Your task to perform on an android device: allow cookies in the chrome app Image 0: 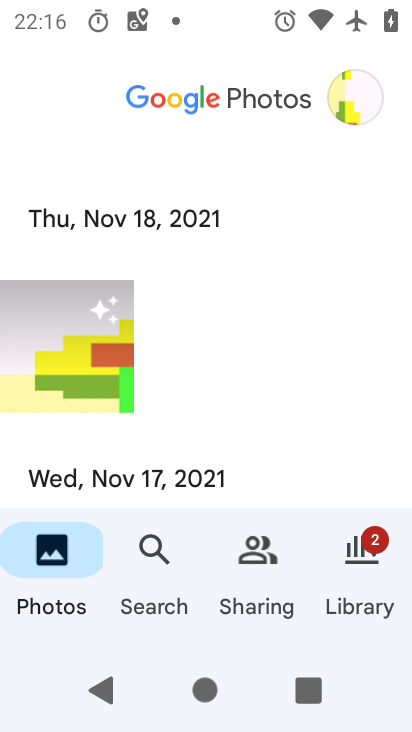
Step 0: press home button
Your task to perform on an android device: allow cookies in the chrome app Image 1: 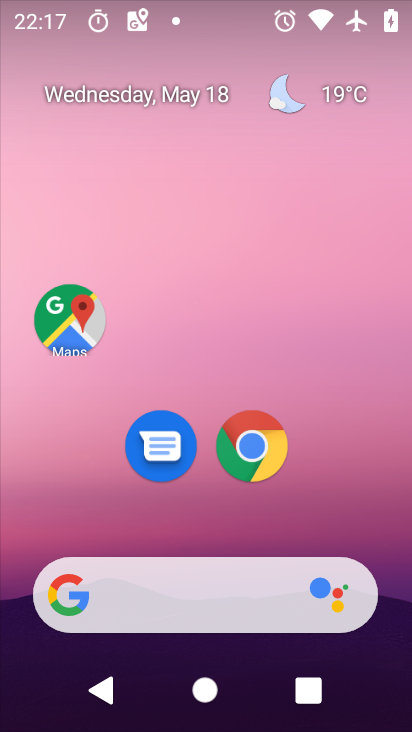
Step 1: click (257, 455)
Your task to perform on an android device: allow cookies in the chrome app Image 2: 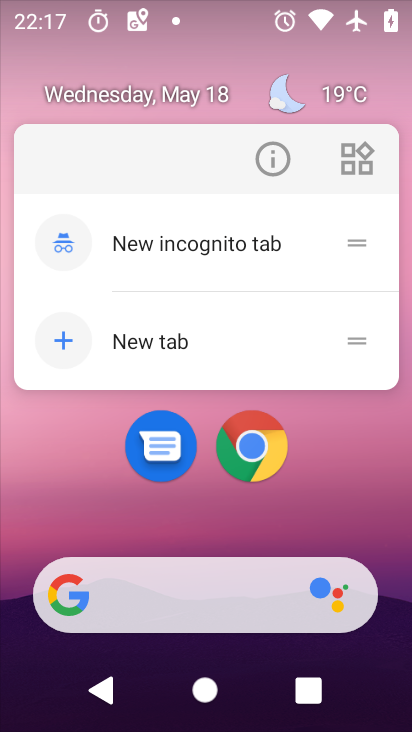
Step 2: click (257, 455)
Your task to perform on an android device: allow cookies in the chrome app Image 3: 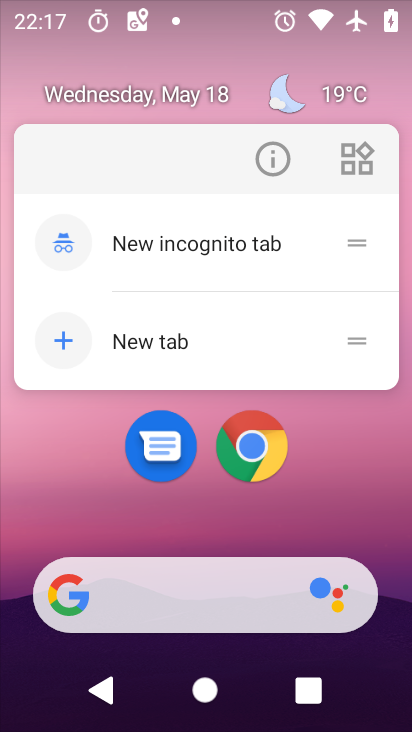
Step 3: click (254, 442)
Your task to perform on an android device: allow cookies in the chrome app Image 4: 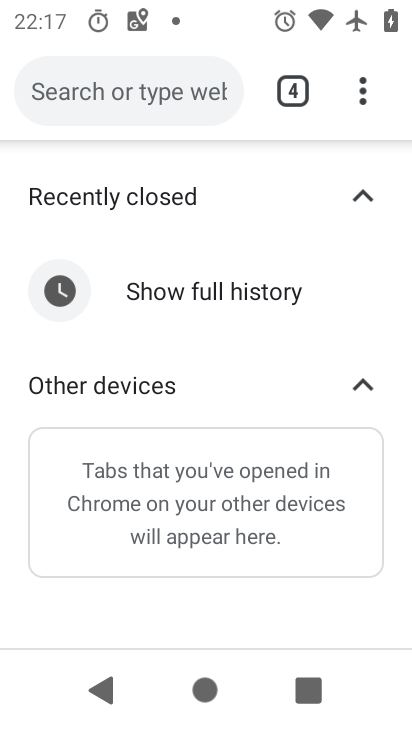
Step 4: drag from (361, 104) to (203, 497)
Your task to perform on an android device: allow cookies in the chrome app Image 5: 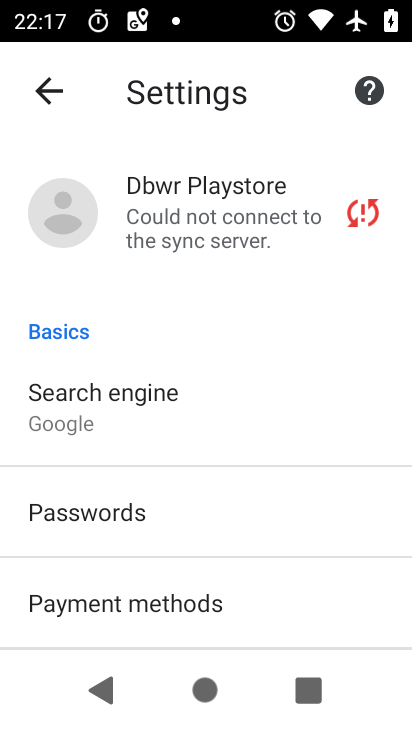
Step 5: drag from (209, 577) to (250, 68)
Your task to perform on an android device: allow cookies in the chrome app Image 6: 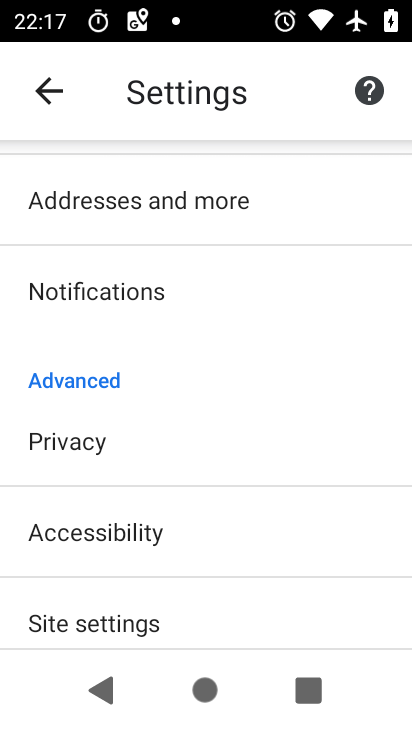
Step 6: click (134, 619)
Your task to perform on an android device: allow cookies in the chrome app Image 7: 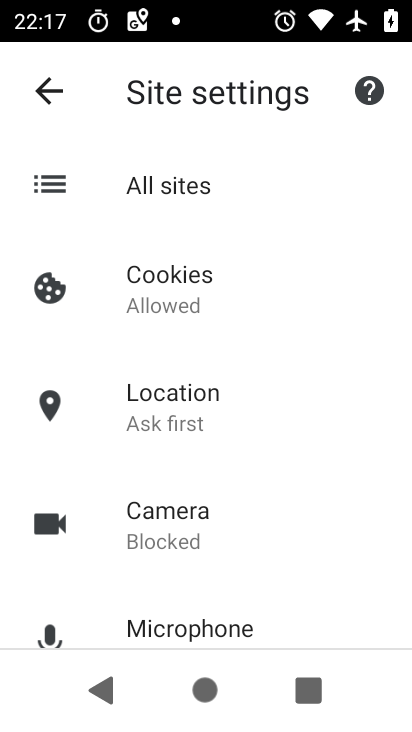
Step 7: click (171, 292)
Your task to perform on an android device: allow cookies in the chrome app Image 8: 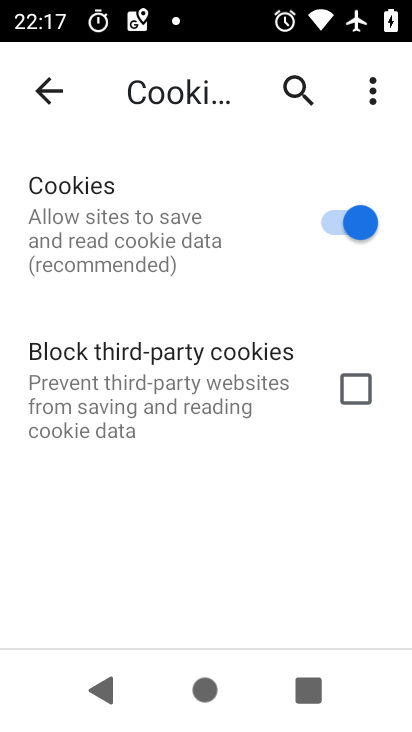
Step 8: task complete